Your task to perform on an android device: Open display settings Image 0: 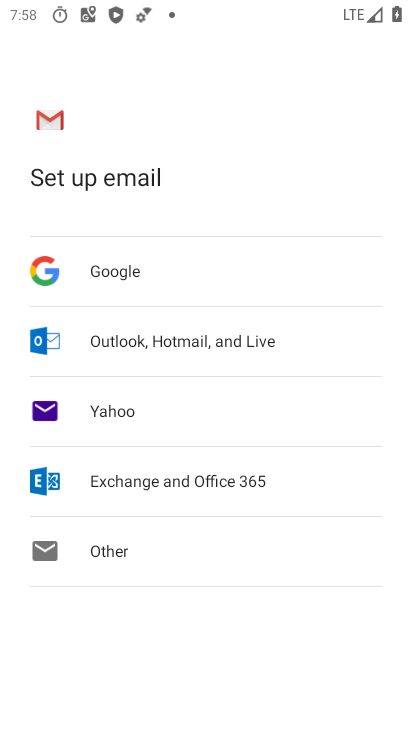
Step 0: press home button
Your task to perform on an android device: Open display settings Image 1: 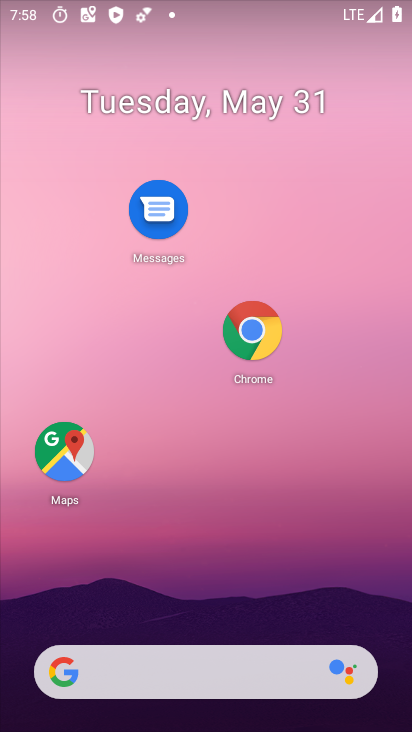
Step 1: drag from (206, 617) to (187, 169)
Your task to perform on an android device: Open display settings Image 2: 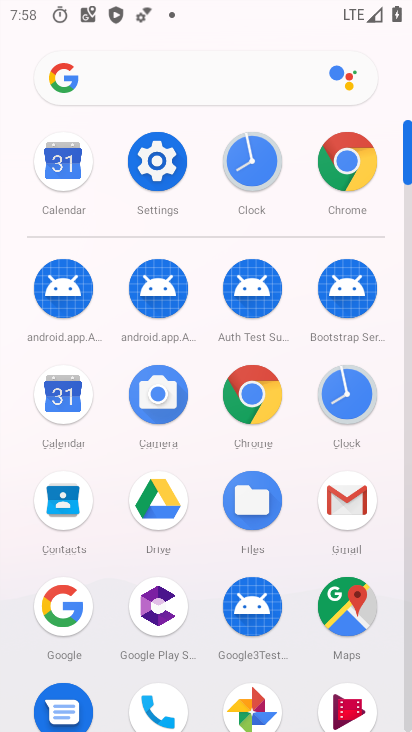
Step 2: click (163, 179)
Your task to perform on an android device: Open display settings Image 3: 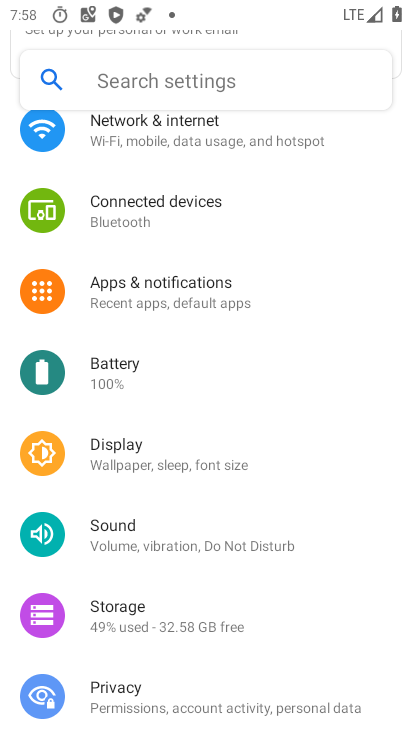
Step 3: click (131, 459)
Your task to perform on an android device: Open display settings Image 4: 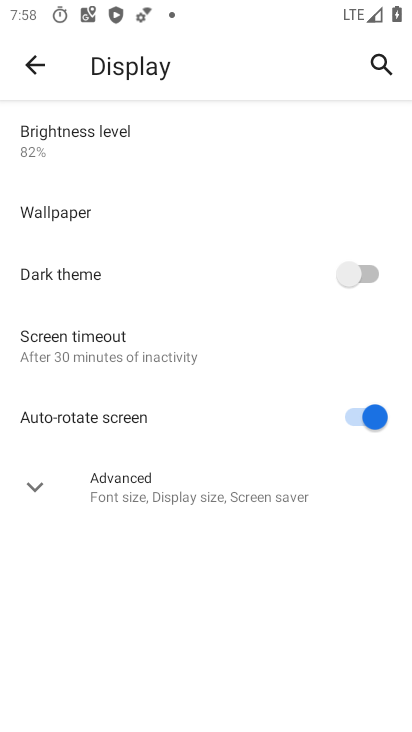
Step 4: task complete